Your task to perform on an android device: Go to internet settings Image 0: 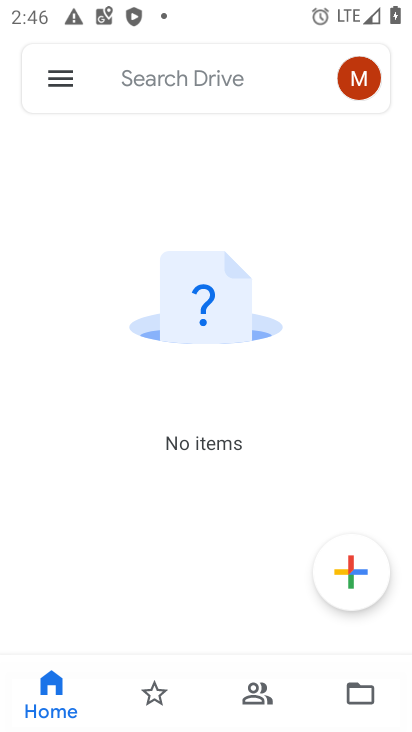
Step 0: press home button
Your task to perform on an android device: Go to internet settings Image 1: 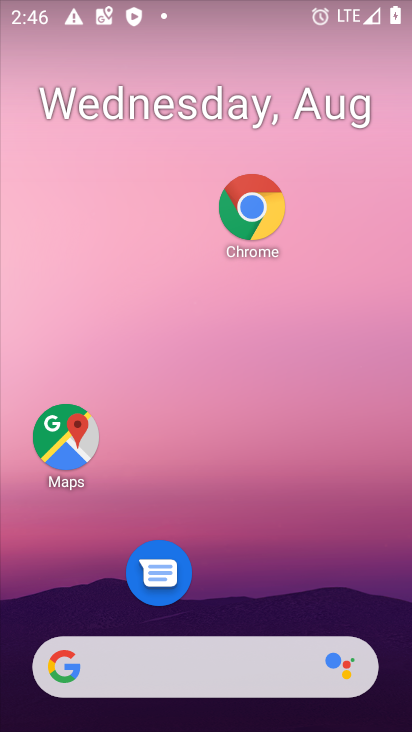
Step 1: drag from (300, 539) to (290, 96)
Your task to perform on an android device: Go to internet settings Image 2: 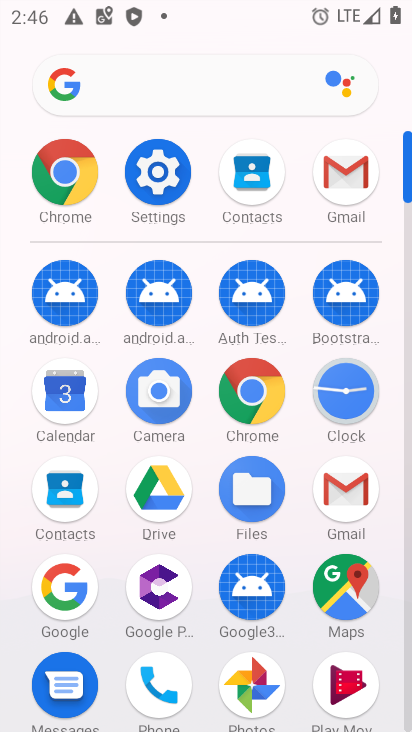
Step 2: click (172, 179)
Your task to perform on an android device: Go to internet settings Image 3: 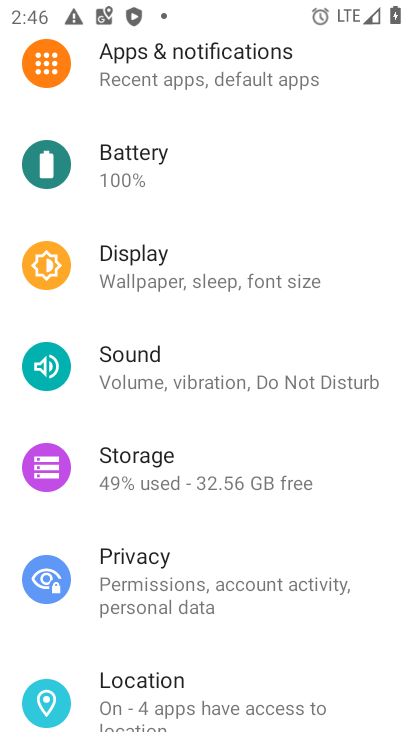
Step 3: drag from (251, 255) to (223, 710)
Your task to perform on an android device: Go to internet settings Image 4: 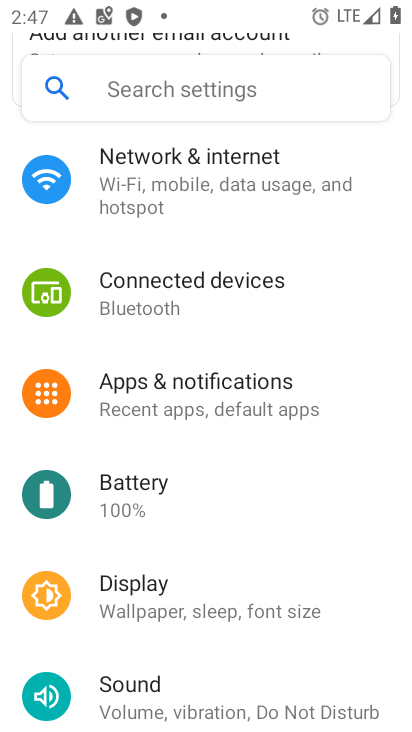
Step 4: click (228, 184)
Your task to perform on an android device: Go to internet settings Image 5: 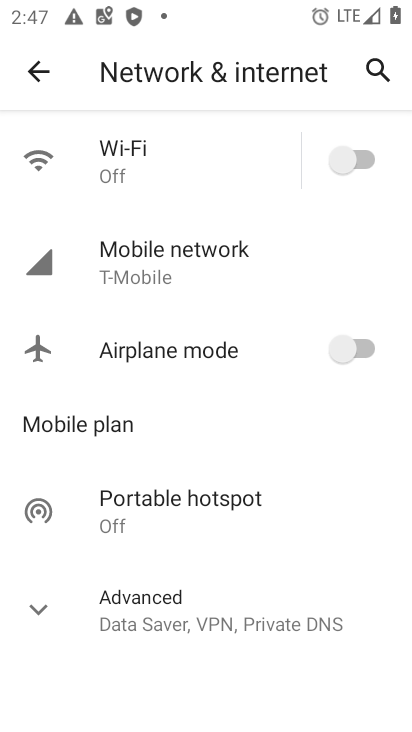
Step 5: click (200, 262)
Your task to perform on an android device: Go to internet settings Image 6: 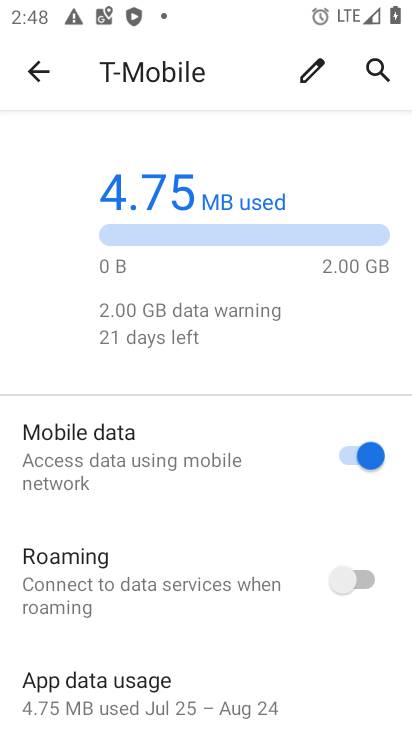
Step 6: task complete